Your task to perform on an android device: Show me popular videos on Youtube Image 0: 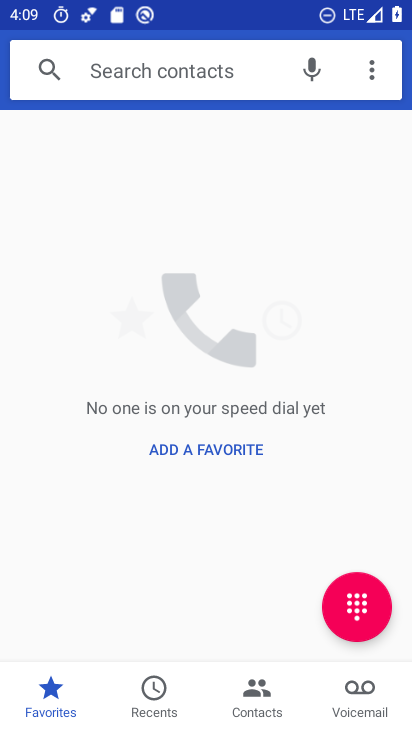
Step 0: press home button
Your task to perform on an android device: Show me popular videos on Youtube Image 1: 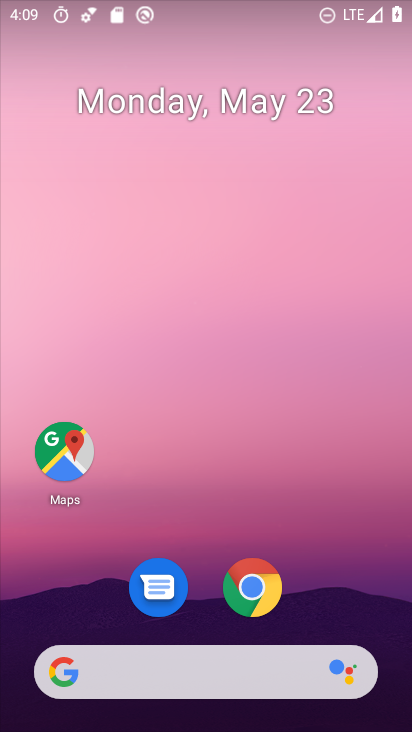
Step 1: drag from (195, 626) to (208, 2)
Your task to perform on an android device: Show me popular videos on Youtube Image 2: 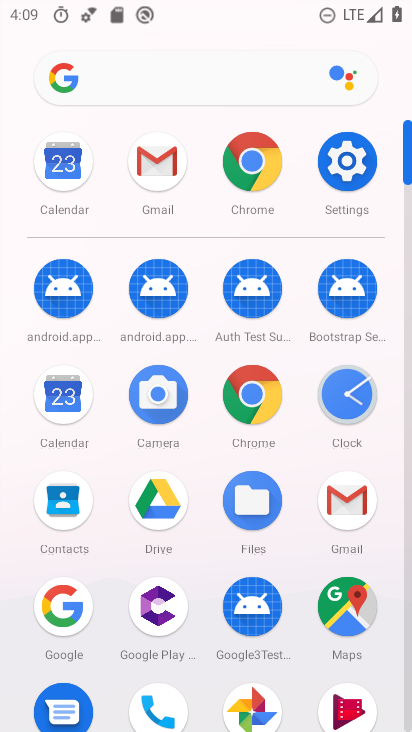
Step 2: drag from (197, 603) to (207, 135)
Your task to perform on an android device: Show me popular videos on Youtube Image 3: 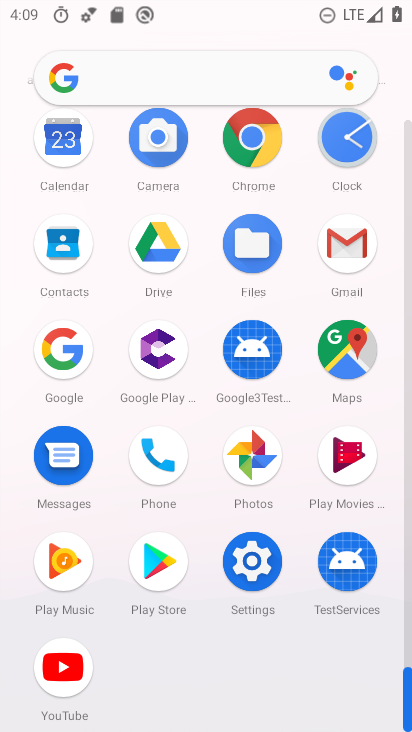
Step 3: click (67, 677)
Your task to perform on an android device: Show me popular videos on Youtube Image 4: 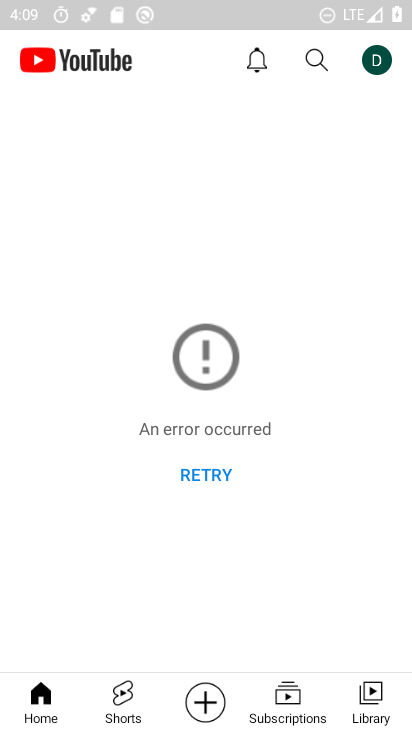
Step 4: click (202, 468)
Your task to perform on an android device: Show me popular videos on Youtube Image 5: 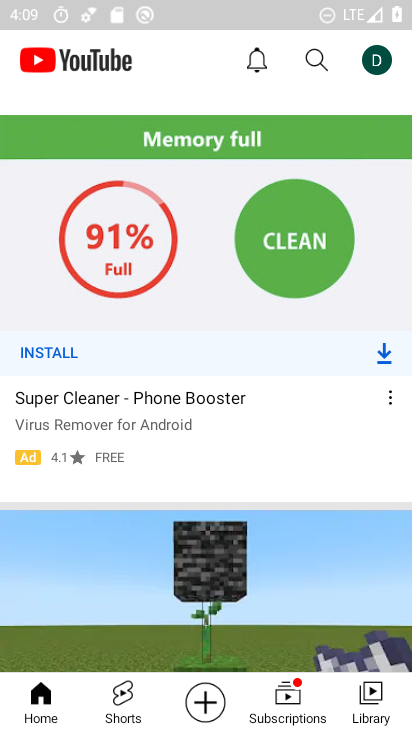
Step 5: drag from (204, 288) to (183, 617)
Your task to perform on an android device: Show me popular videos on Youtube Image 6: 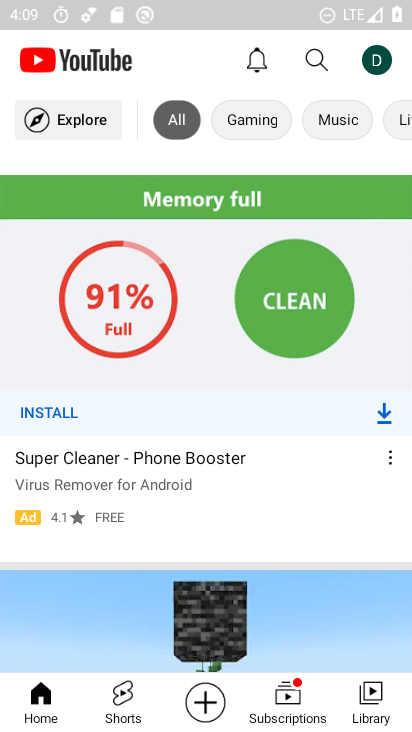
Step 6: click (76, 121)
Your task to perform on an android device: Show me popular videos on Youtube Image 7: 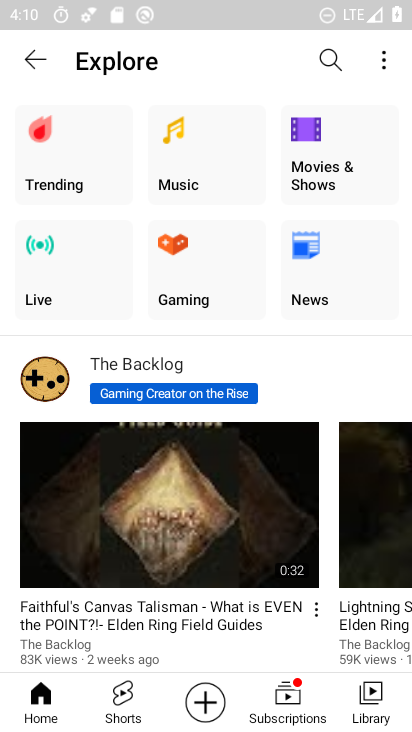
Step 7: click (66, 151)
Your task to perform on an android device: Show me popular videos on Youtube Image 8: 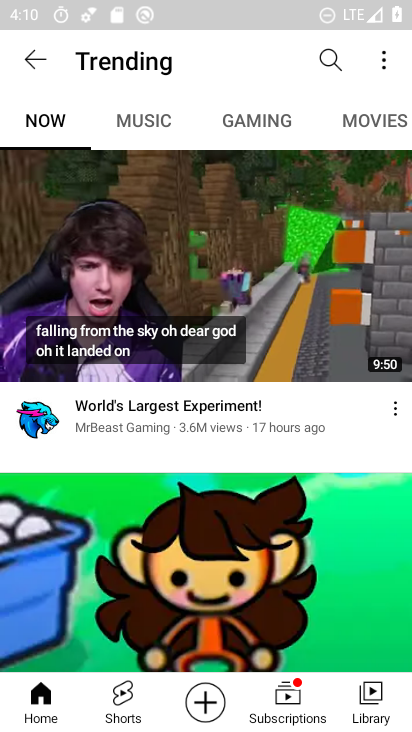
Step 8: task complete